Your task to perform on an android device: See recent photos Image 0: 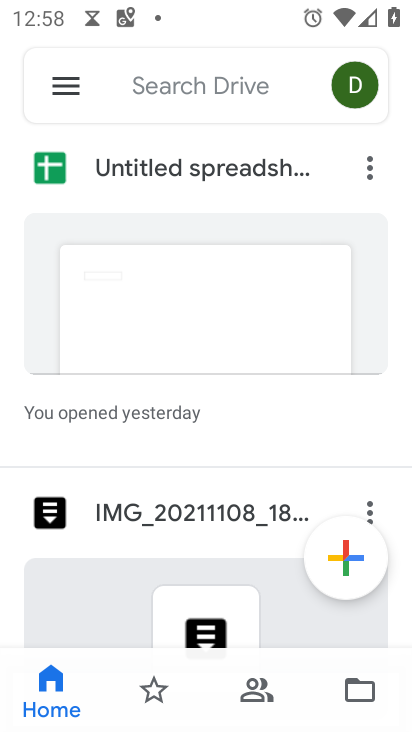
Step 0: press home button
Your task to perform on an android device: See recent photos Image 1: 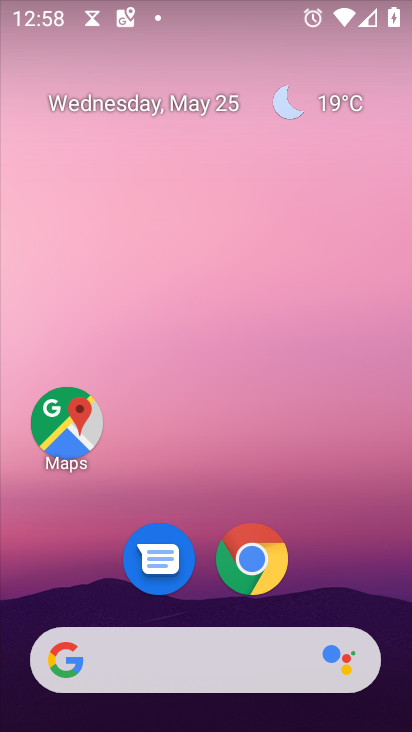
Step 1: drag from (361, 555) to (352, 29)
Your task to perform on an android device: See recent photos Image 2: 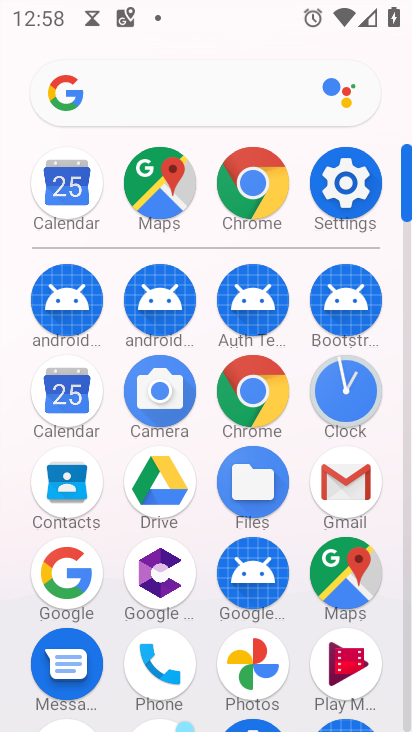
Step 2: click (253, 665)
Your task to perform on an android device: See recent photos Image 3: 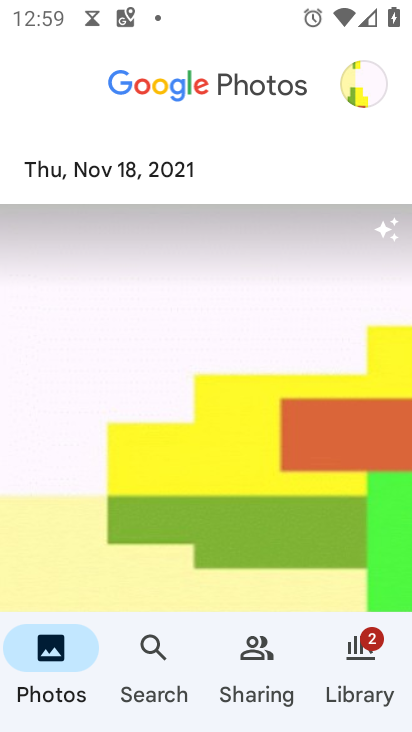
Step 3: task complete